Your task to perform on an android device: See recent photos Image 0: 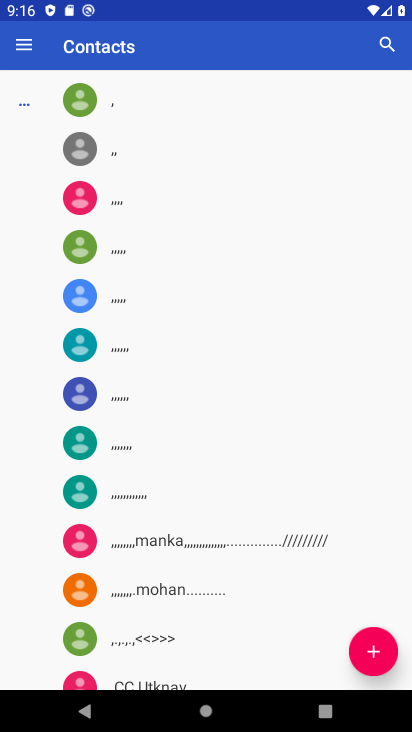
Step 0: press home button
Your task to perform on an android device: See recent photos Image 1: 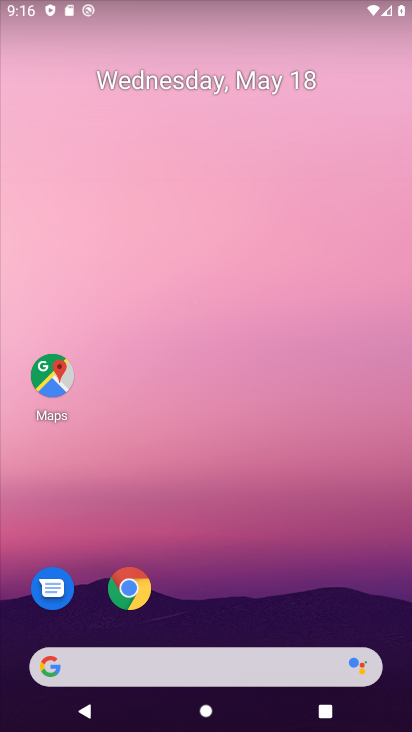
Step 1: drag from (311, 699) to (366, 254)
Your task to perform on an android device: See recent photos Image 2: 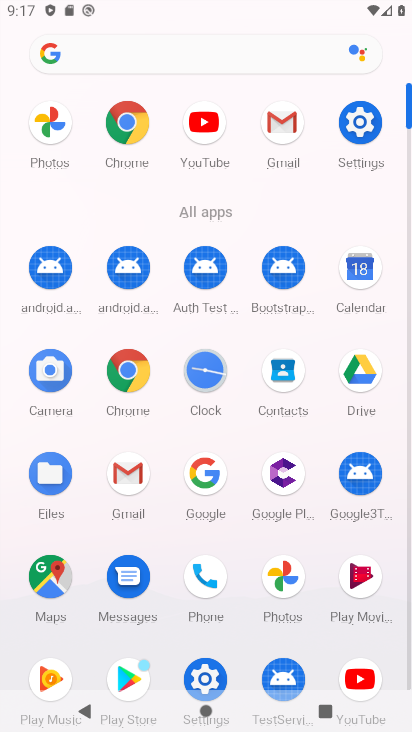
Step 2: click (280, 584)
Your task to perform on an android device: See recent photos Image 3: 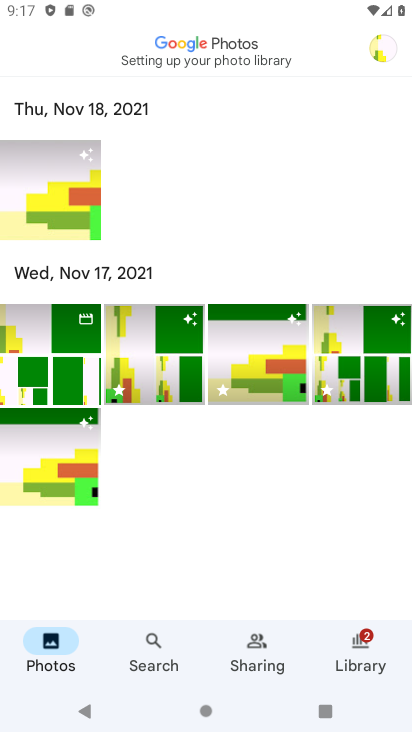
Step 3: task complete